Your task to perform on an android device: turn off improve location accuracy Image 0: 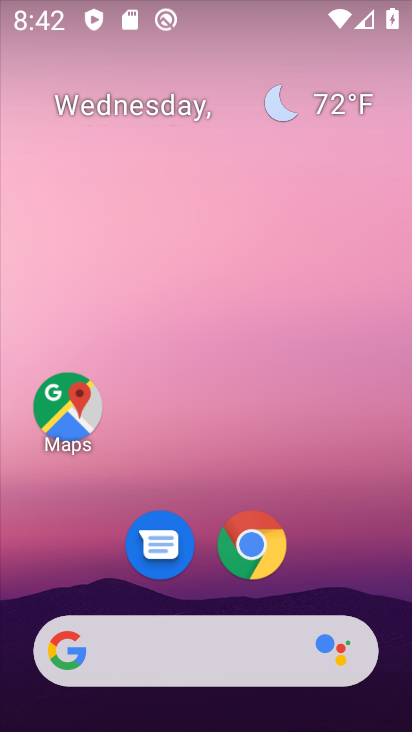
Step 0: drag from (274, 699) to (94, 131)
Your task to perform on an android device: turn off improve location accuracy Image 1: 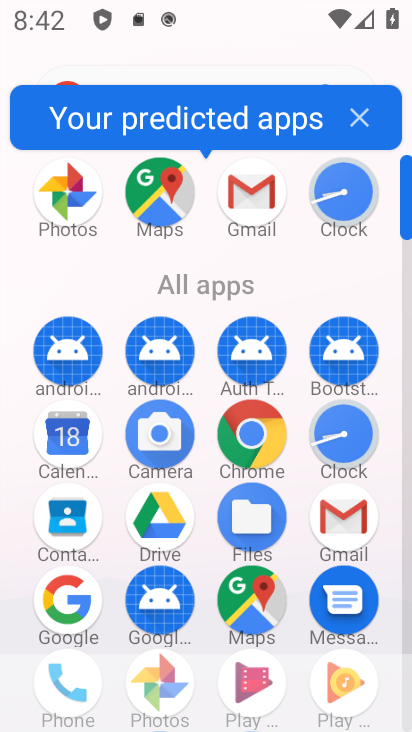
Step 1: click (266, 263)
Your task to perform on an android device: turn off improve location accuracy Image 2: 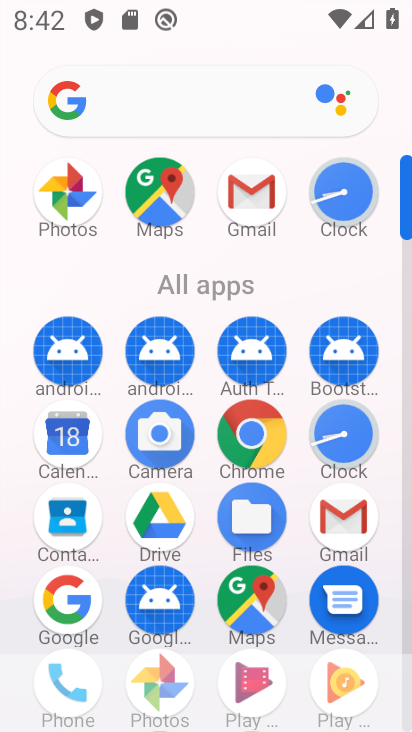
Step 2: drag from (291, 507) to (283, 145)
Your task to perform on an android device: turn off improve location accuracy Image 3: 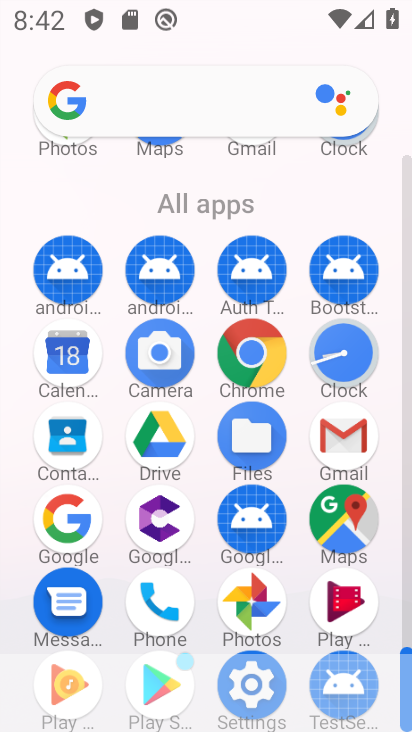
Step 3: drag from (196, 599) to (170, 106)
Your task to perform on an android device: turn off improve location accuracy Image 4: 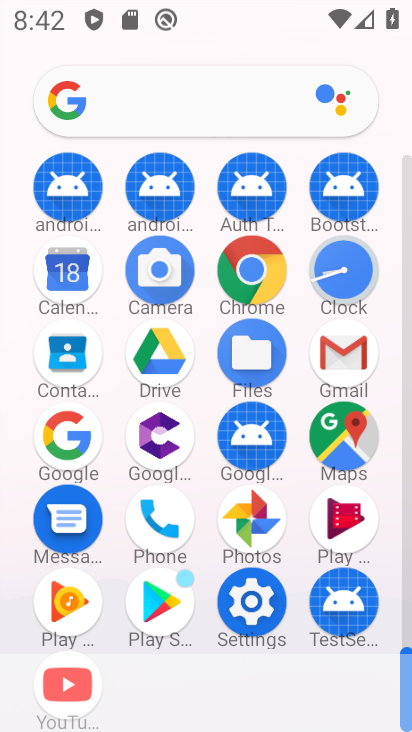
Step 4: click (257, 596)
Your task to perform on an android device: turn off improve location accuracy Image 5: 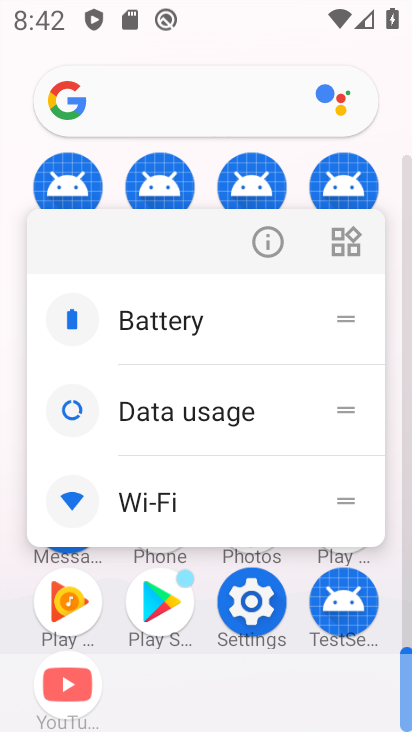
Step 5: click (238, 591)
Your task to perform on an android device: turn off improve location accuracy Image 6: 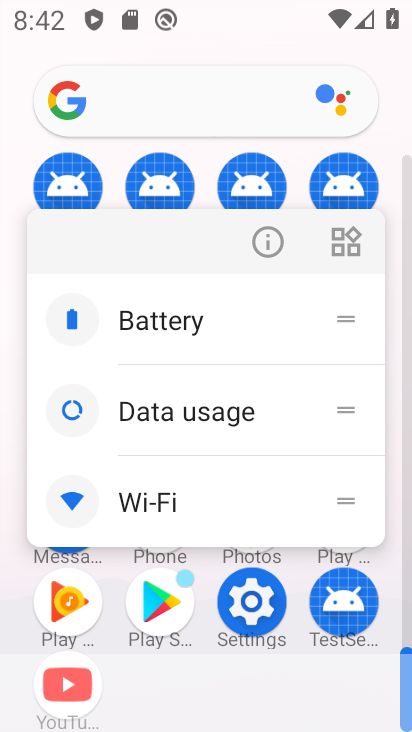
Step 6: click (254, 599)
Your task to perform on an android device: turn off improve location accuracy Image 7: 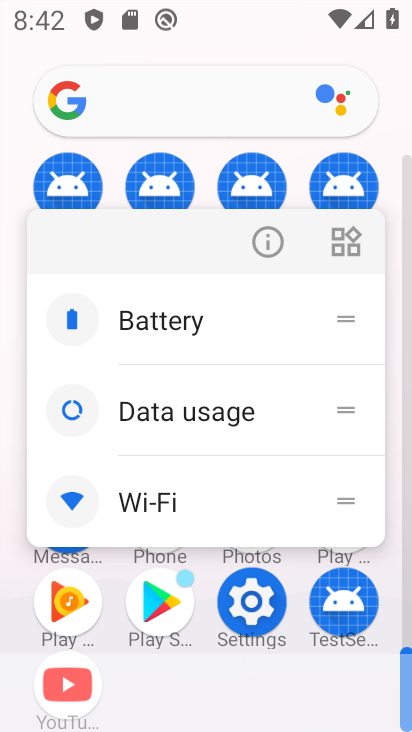
Step 7: click (254, 599)
Your task to perform on an android device: turn off improve location accuracy Image 8: 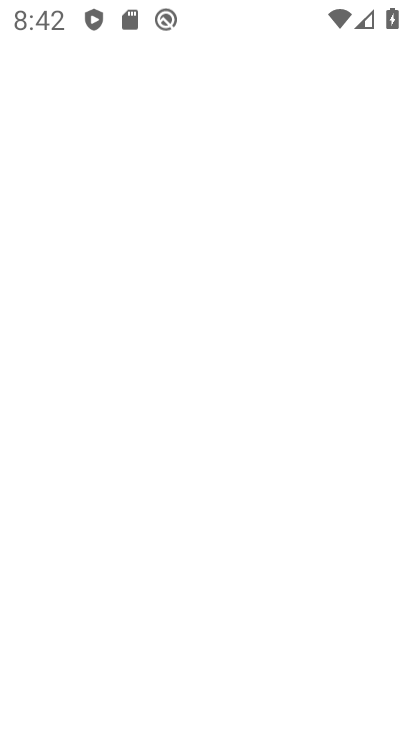
Step 8: click (247, 595)
Your task to perform on an android device: turn off improve location accuracy Image 9: 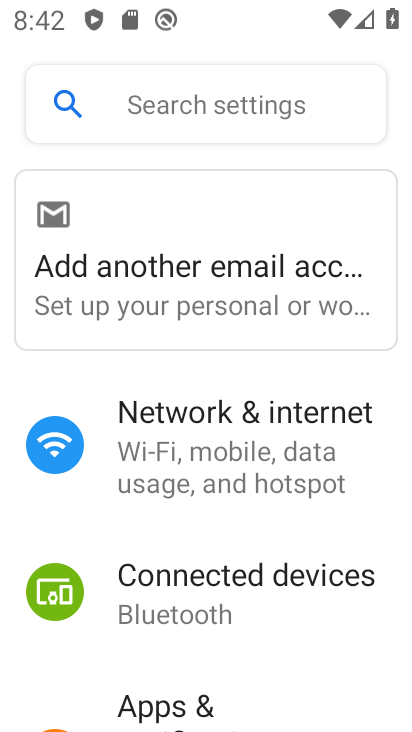
Step 9: drag from (196, 523) to (202, 97)
Your task to perform on an android device: turn off improve location accuracy Image 10: 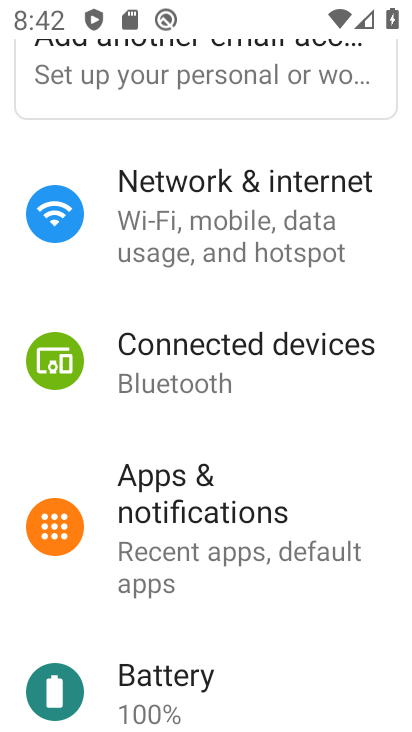
Step 10: drag from (257, 621) to (209, 158)
Your task to perform on an android device: turn off improve location accuracy Image 11: 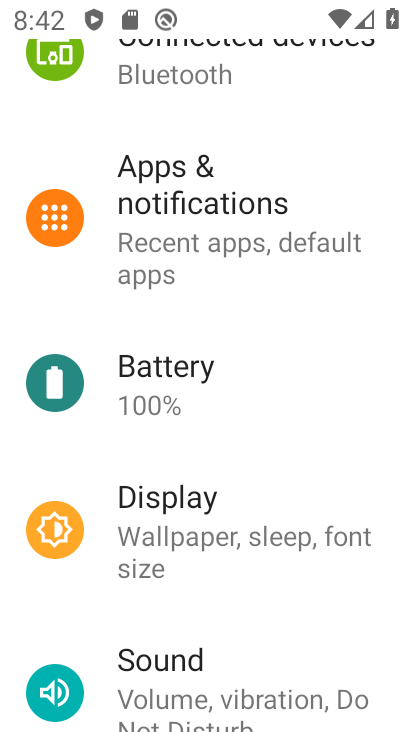
Step 11: drag from (232, 490) to (215, 29)
Your task to perform on an android device: turn off improve location accuracy Image 12: 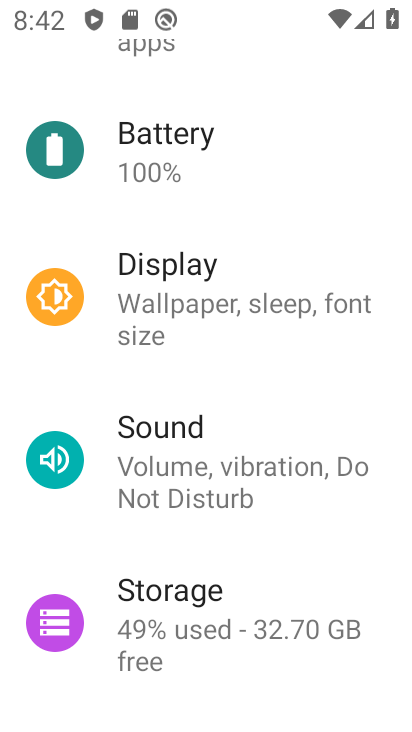
Step 12: drag from (255, 566) to (239, 95)
Your task to perform on an android device: turn off improve location accuracy Image 13: 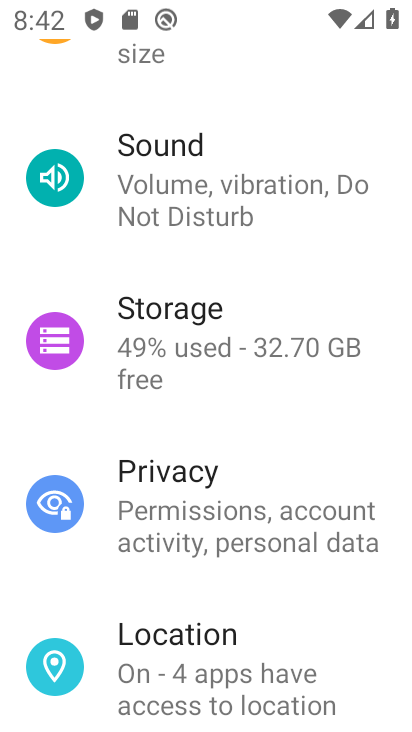
Step 13: click (193, 624)
Your task to perform on an android device: turn off improve location accuracy Image 14: 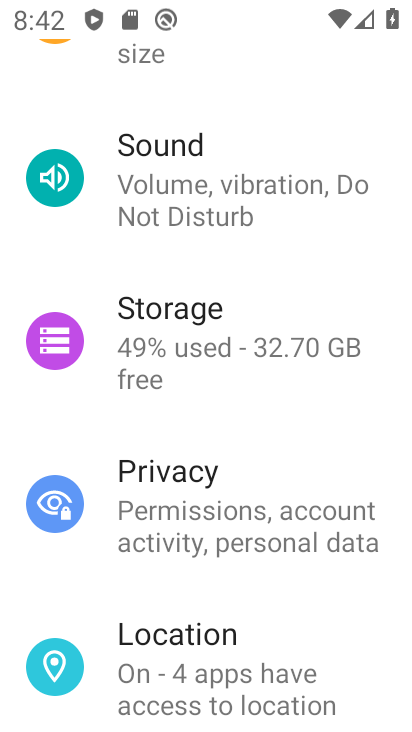
Step 14: click (194, 649)
Your task to perform on an android device: turn off improve location accuracy Image 15: 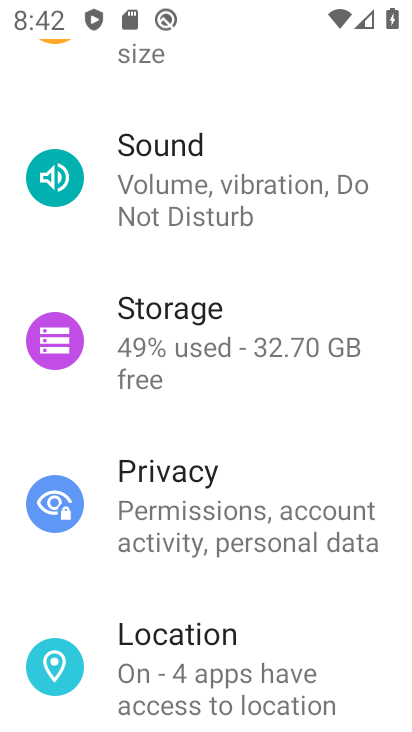
Step 15: click (196, 650)
Your task to perform on an android device: turn off improve location accuracy Image 16: 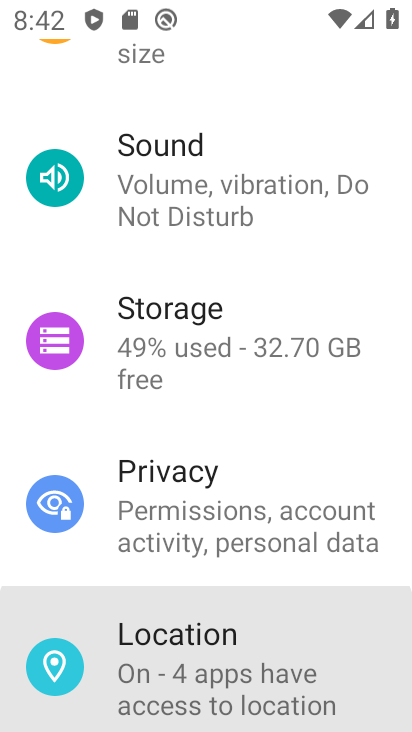
Step 16: click (196, 650)
Your task to perform on an android device: turn off improve location accuracy Image 17: 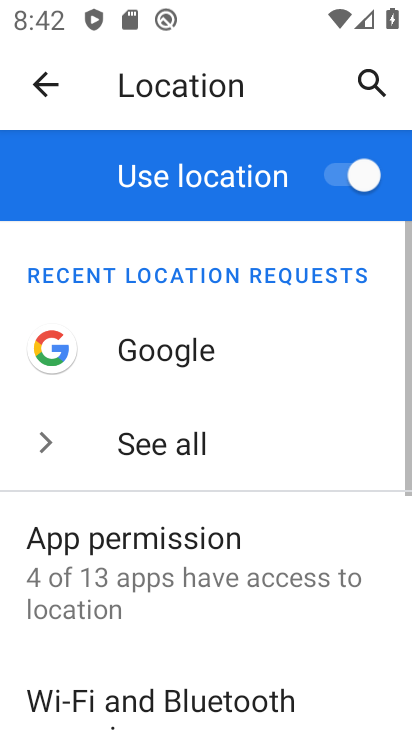
Step 17: drag from (178, 472) to (196, 249)
Your task to perform on an android device: turn off improve location accuracy Image 18: 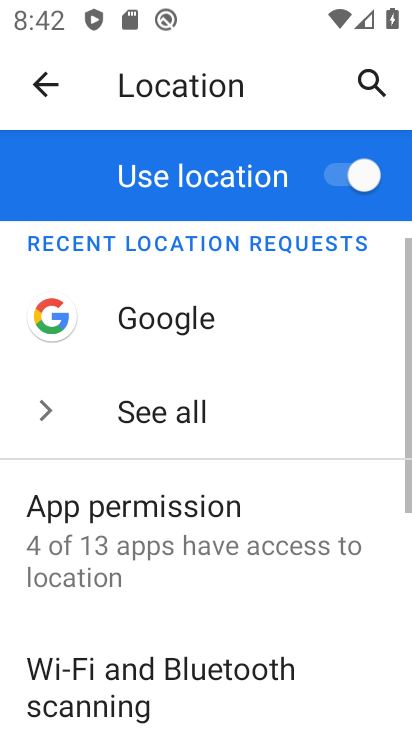
Step 18: drag from (196, 480) to (195, 159)
Your task to perform on an android device: turn off improve location accuracy Image 19: 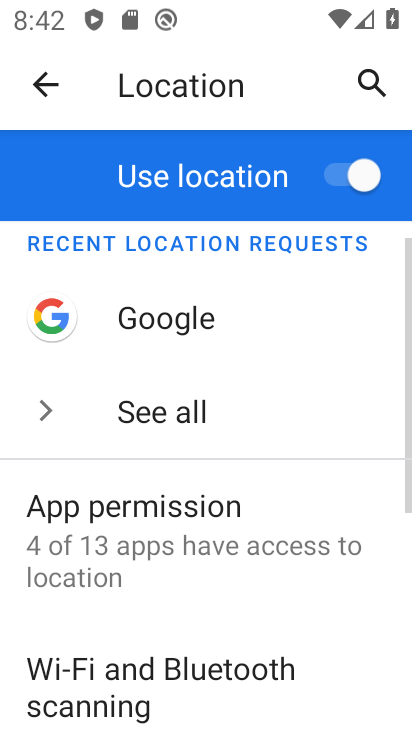
Step 19: drag from (197, 501) to (172, 217)
Your task to perform on an android device: turn off improve location accuracy Image 20: 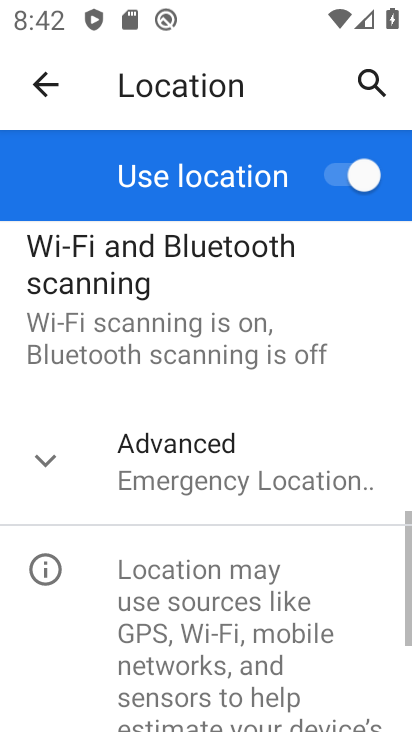
Step 20: drag from (201, 517) to (201, 265)
Your task to perform on an android device: turn off improve location accuracy Image 21: 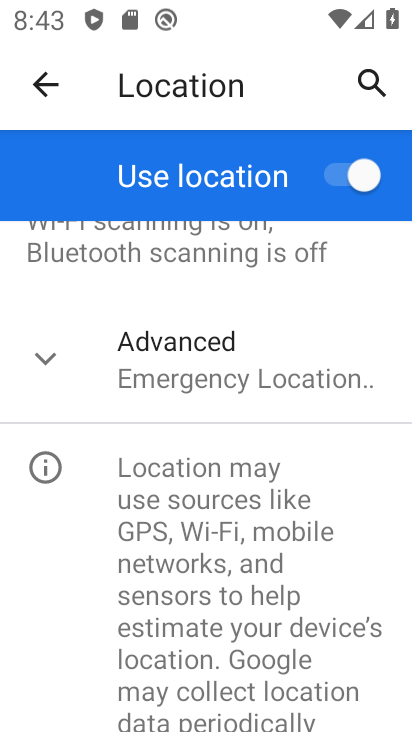
Step 21: click (191, 388)
Your task to perform on an android device: turn off improve location accuracy Image 22: 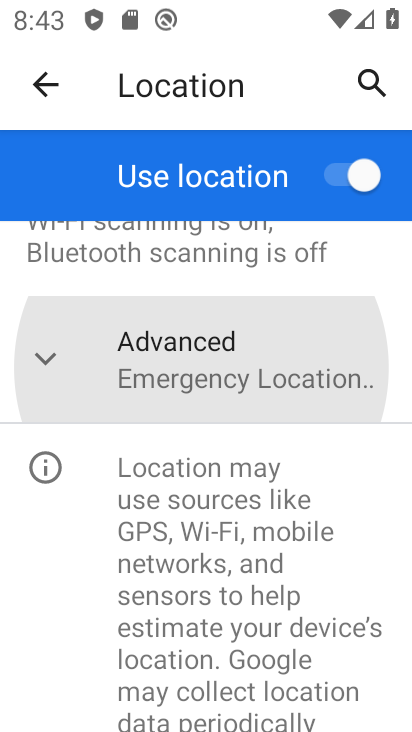
Step 22: click (192, 387)
Your task to perform on an android device: turn off improve location accuracy Image 23: 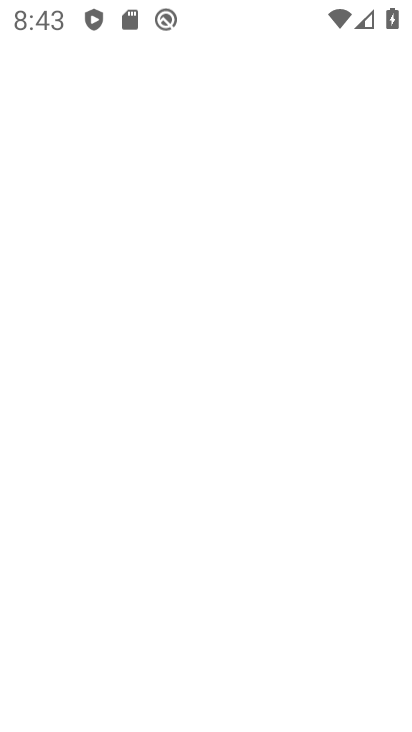
Step 23: click (168, 371)
Your task to perform on an android device: turn off improve location accuracy Image 24: 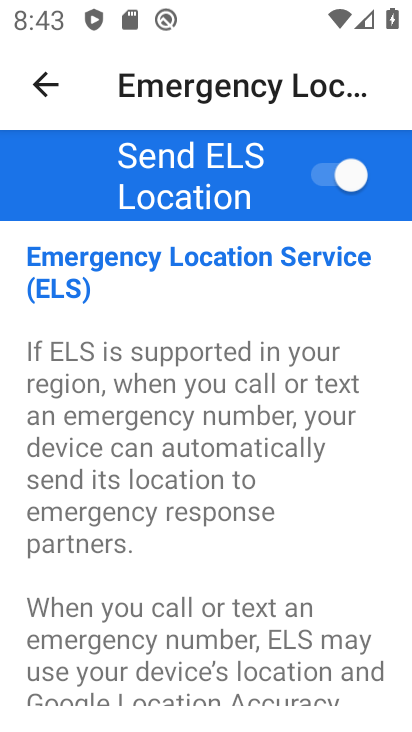
Step 24: drag from (122, 271) to (77, 35)
Your task to perform on an android device: turn off improve location accuracy Image 25: 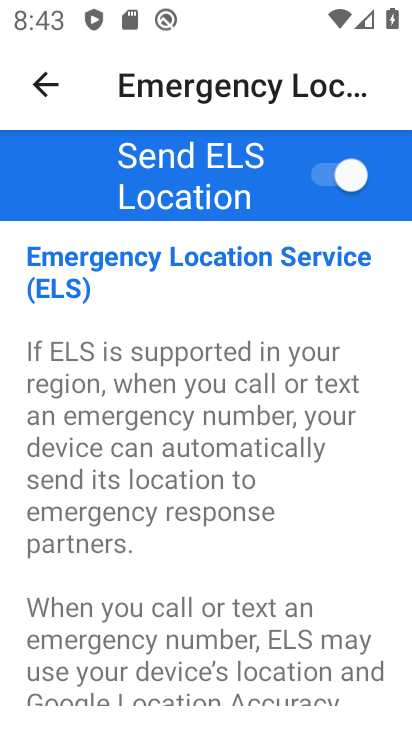
Step 25: click (38, 92)
Your task to perform on an android device: turn off improve location accuracy Image 26: 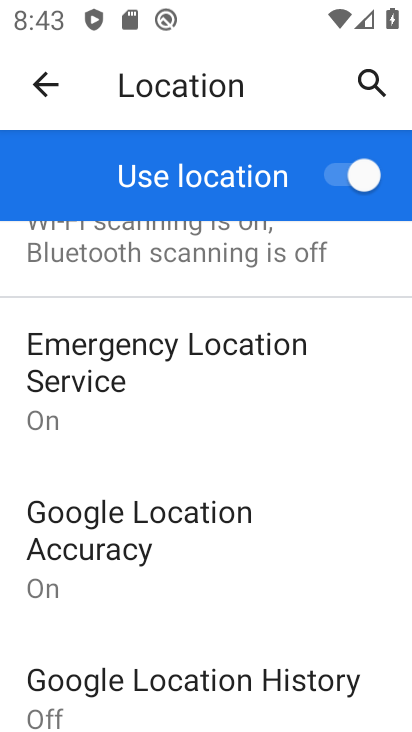
Step 26: click (105, 531)
Your task to perform on an android device: turn off improve location accuracy Image 27: 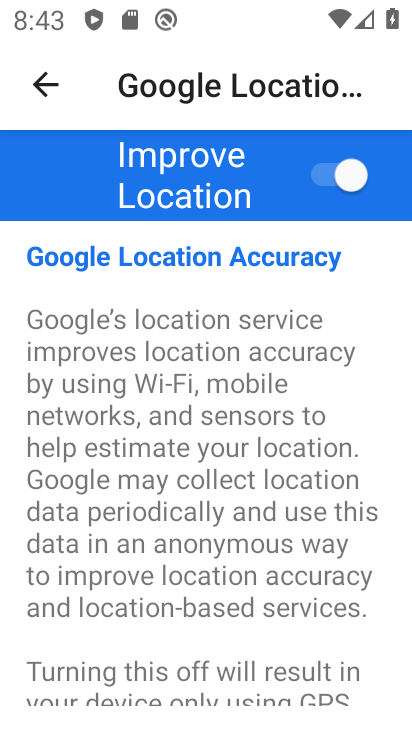
Step 27: click (329, 166)
Your task to perform on an android device: turn off improve location accuracy Image 28: 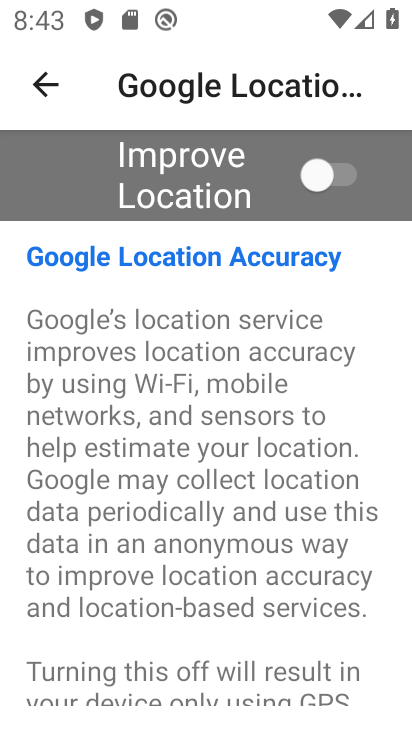
Step 28: click (333, 171)
Your task to perform on an android device: turn off improve location accuracy Image 29: 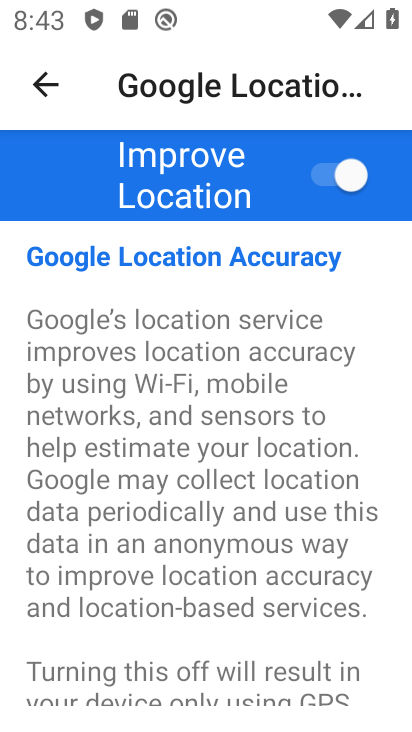
Step 29: task complete